Your task to perform on an android device: turn off airplane mode Image 0: 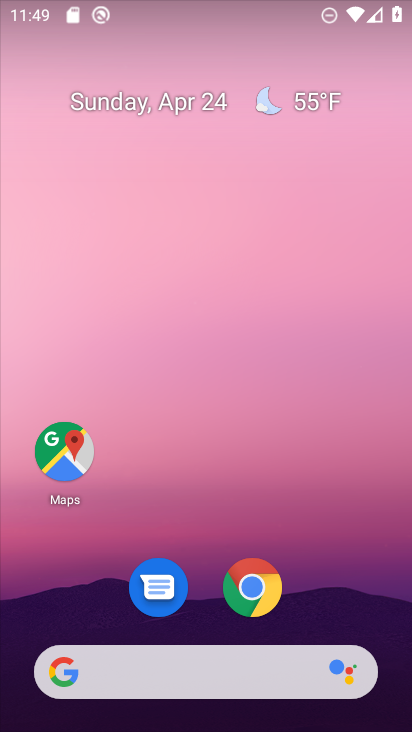
Step 0: drag from (293, 4) to (218, 512)
Your task to perform on an android device: turn off airplane mode Image 1: 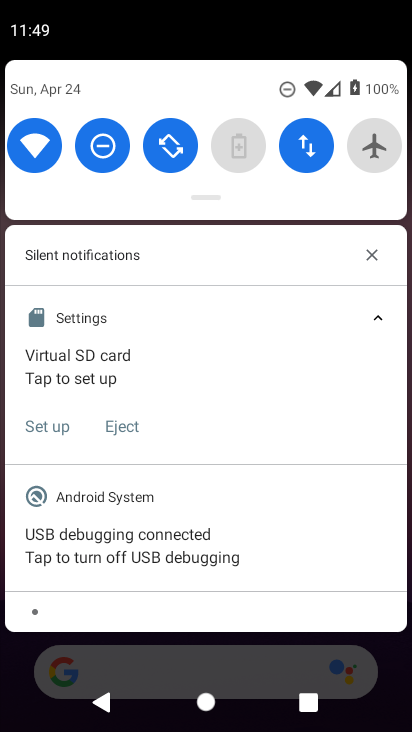
Step 1: task complete